Your task to perform on an android device: Go to Yahoo.com Image 0: 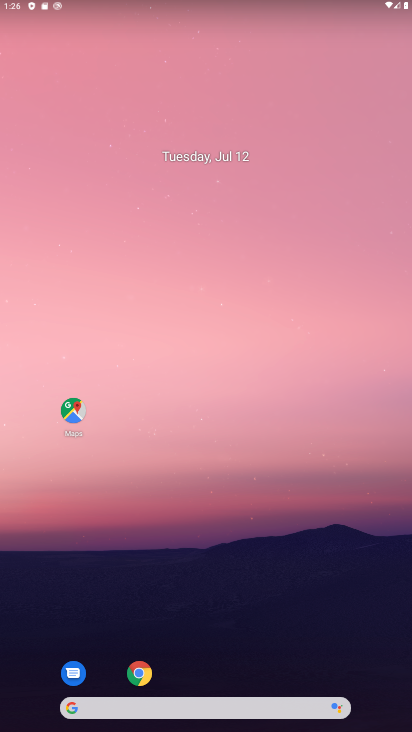
Step 0: drag from (376, 567) to (329, 169)
Your task to perform on an android device: Go to Yahoo.com Image 1: 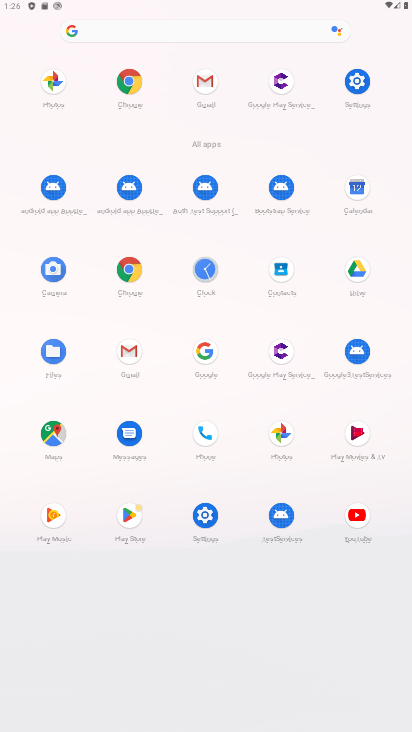
Step 1: click (129, 81)
Your task to perform on an android device: Go to Yahoo.com Image 2: 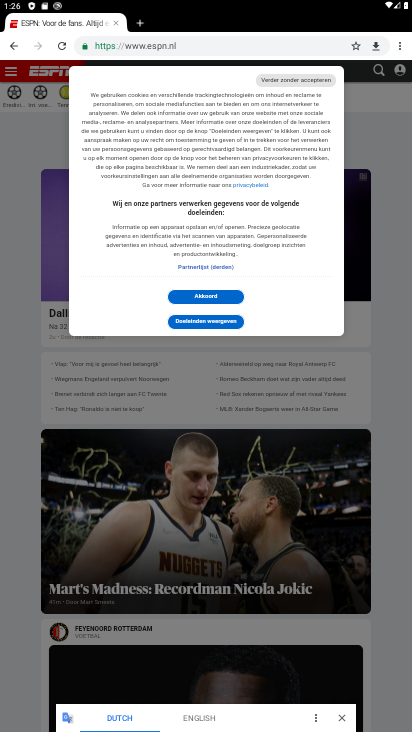
Step 2: click (11, 43)
Your task to perform on an android device: Go to Yahoo.com Image 3: 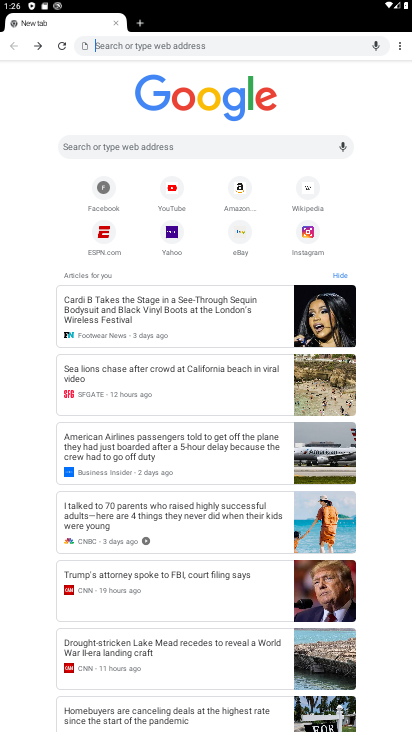
Step 3: click (173, 241)
Your task to perform on an android device: Go to Yahoo.com Image 4: 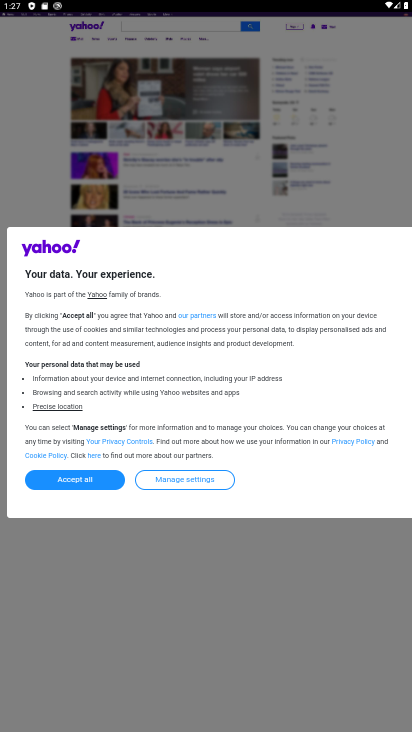
Step 4: task complete